Your task to perform on an android device: When is my next meeting? Image 0: 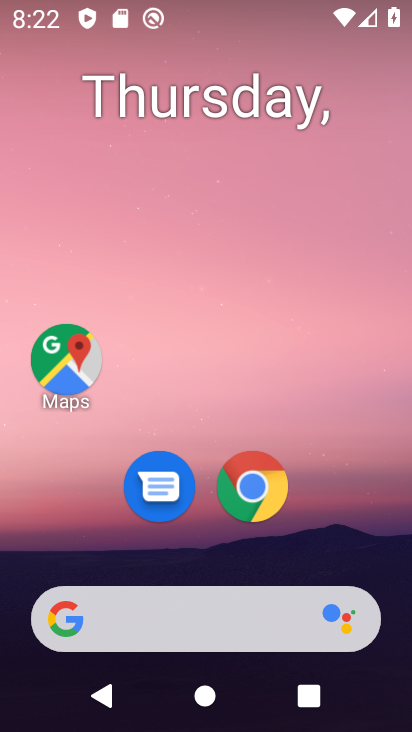
Step 0: drag from (171, 580) to (291, 2)
Your task to perform on an android device: When is my next meeting? Image 1: 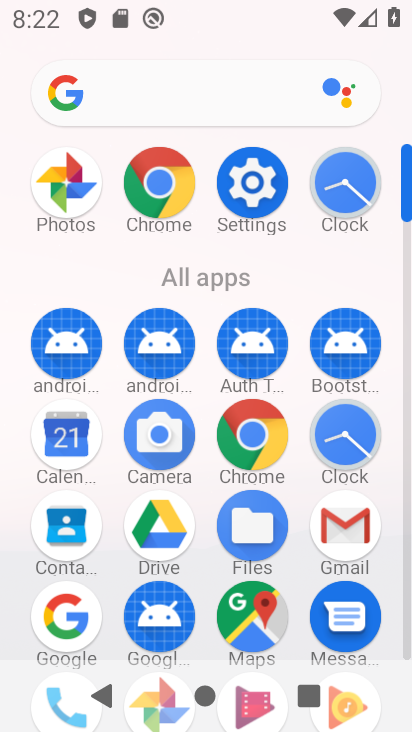
Step 1: click (67, 432)
Your task to perform on an android device: When is my next meeting? Image 2: 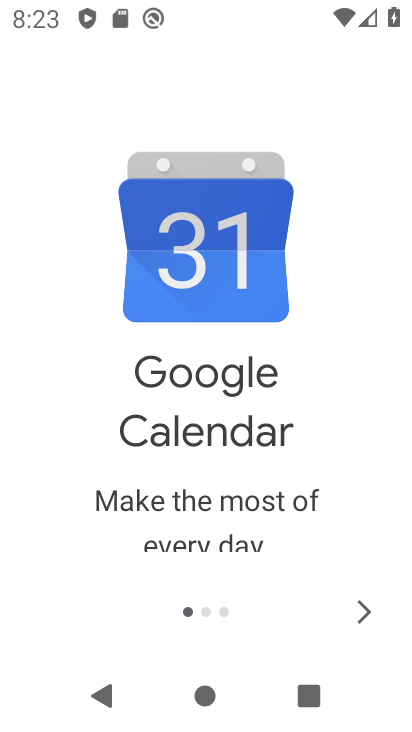
Step 2: click (364, 603)
Your task to perform on an android device: When is my next meeting? Image 3: 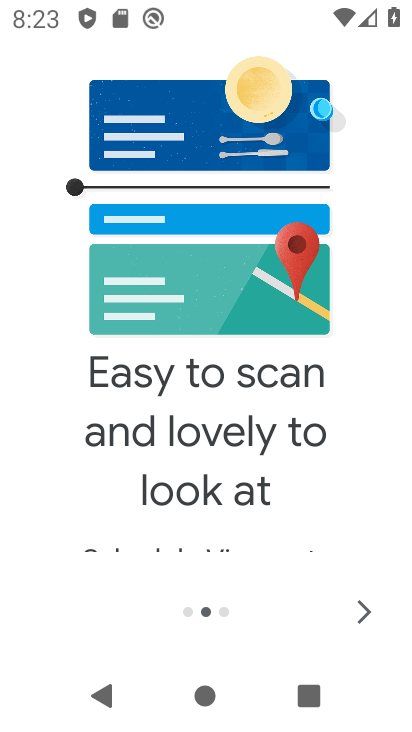
Step 3: click (364, 603)
Your task to perform on an android device: When is my next meeting? Image 4: 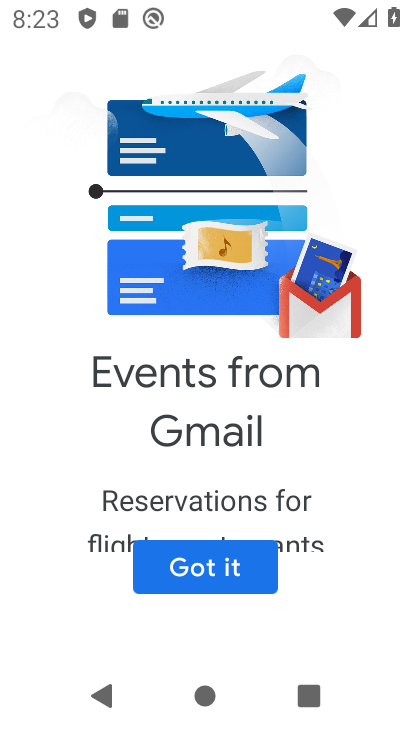
Step 4: click (144, 577)
Your task to perform on an android device: When is my next meeting? Image 5: 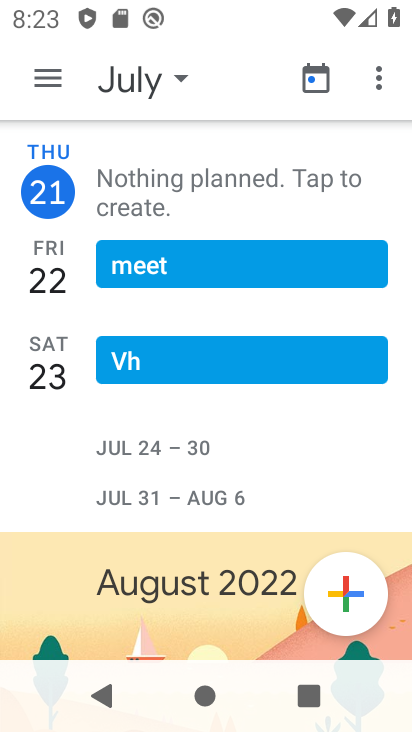
Step 5: task complete